Your task to perform on an android device: Open notification settings Image 0: 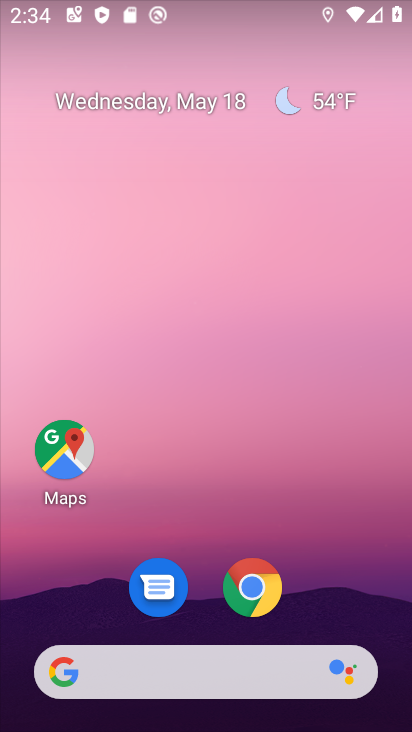
Step 0: drag from (215, 498) to (221, 159)
Your task to perform on an android device: Open notification settings Image 1: 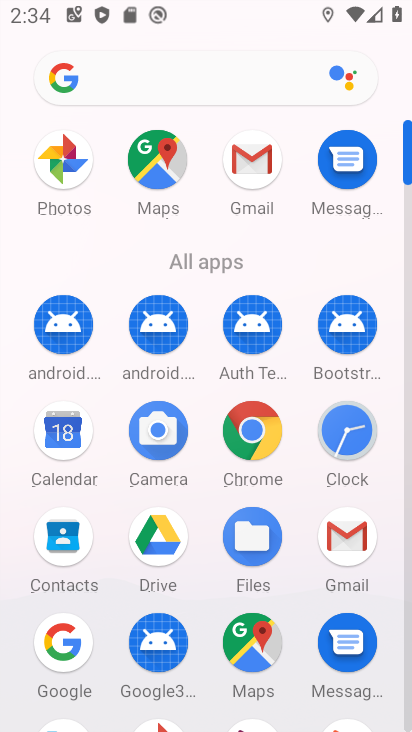
Step 1: drag from (213, 521) to (215, 201)
Your task to perform on an android device: Open notification settings Image 2: 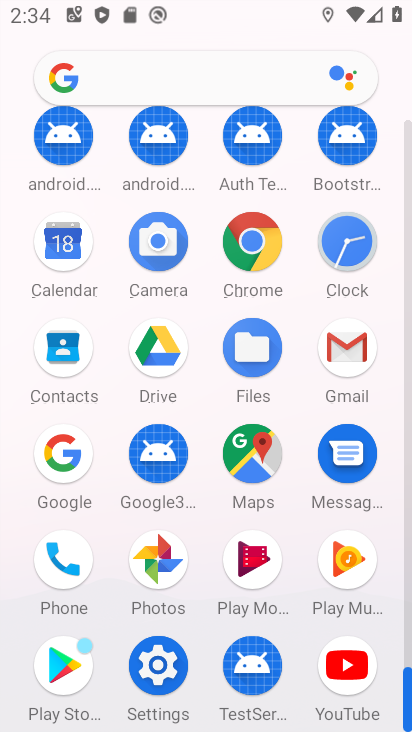
Step 2: click (152, 661)
Your task to perform on an android device: Open notification settings Image 3: 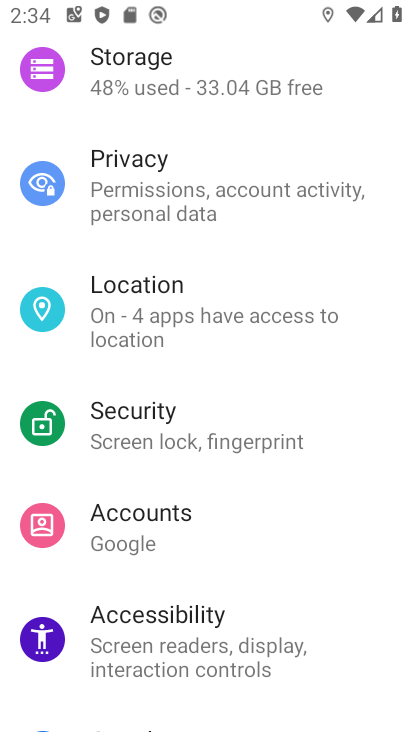
Step 3: drag from (230, 600) to (225, 224)
Your task to perform on an android device: Open notification settings Image 4: 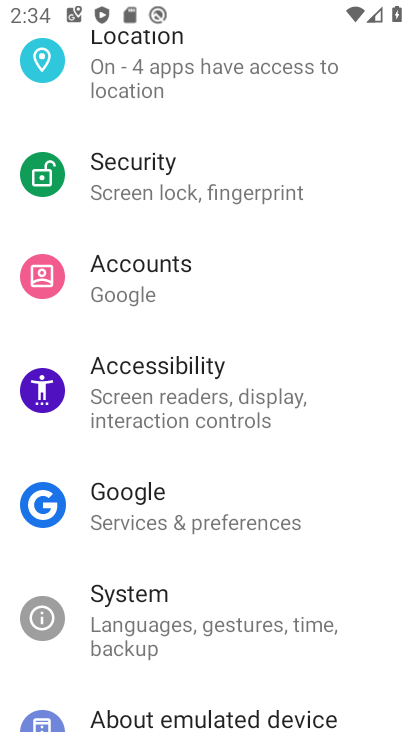
Step 4: drag from (195, 105) to (178, 726)
Your task to perform on an android device: Open notification settings Image 5: 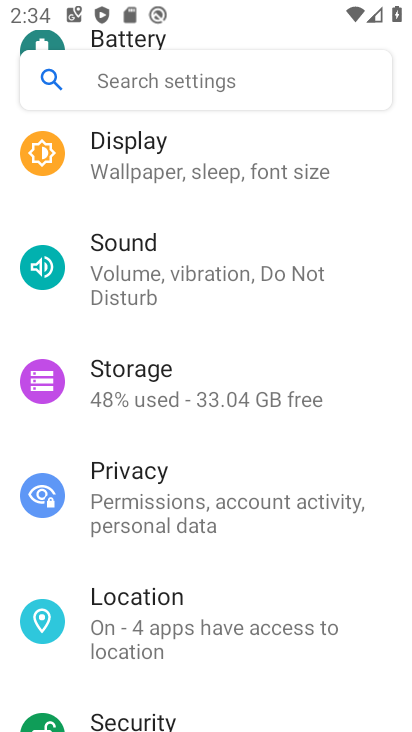
Step 5: drag from (191, 156) to (315, 731)
Your task to perform on an android device: Open notification settings Image 6: 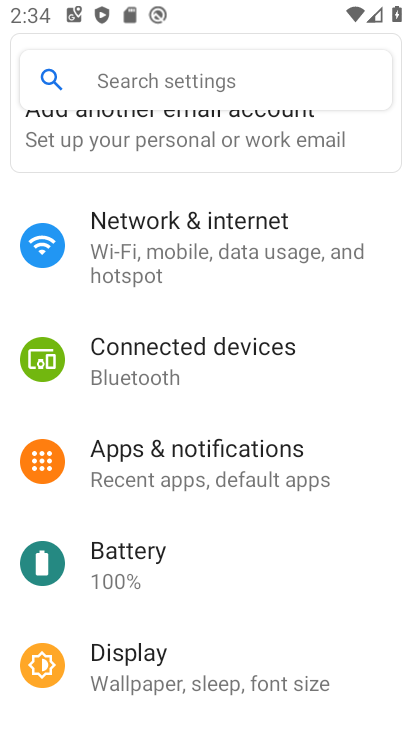
Step 6: click (196, 443)
Your task to perform on an android device: Open notification settings Image 7: 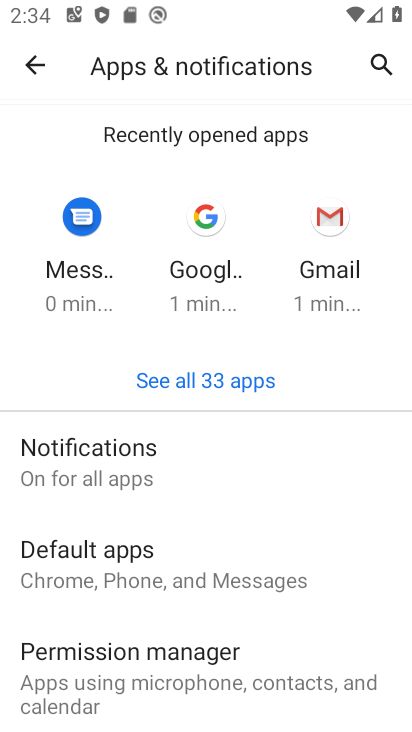
Step 7: click (174, 462)
Your task to perform on an android device: Open notification settings Image 8: 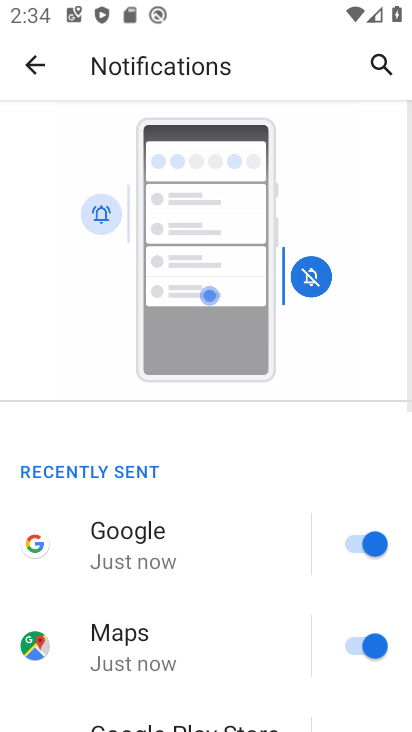
Step 8: task complete